Your task to perform on an android device: refresh tabs in the chrome app Image 0: 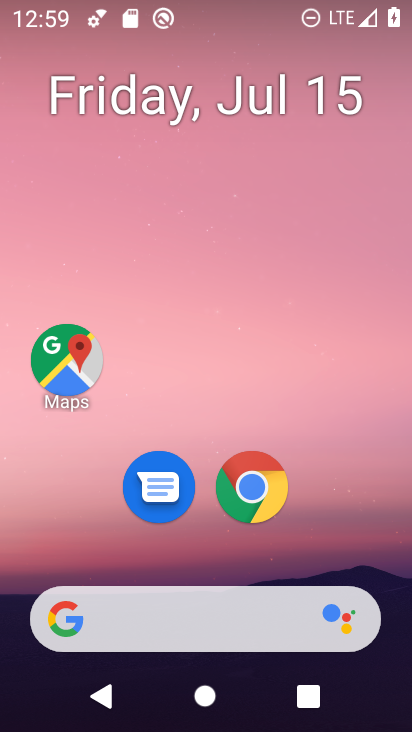
Step 0: drag from (239, 598) to (280, 169)
Your task to perform on an android device: refresh tabs in the chrome app Image 1: 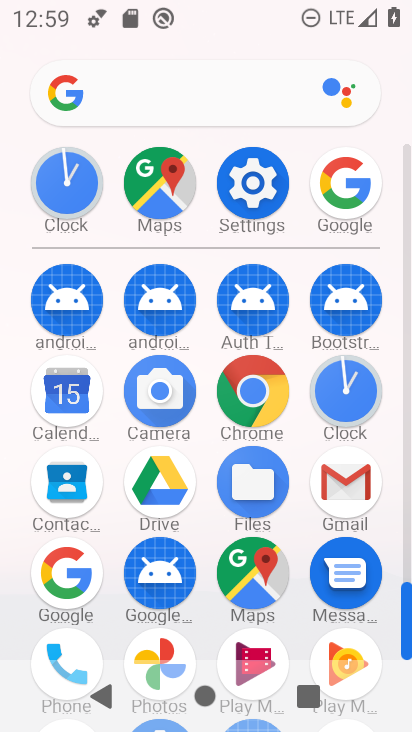
Step 1: click (280, 373)
Your task to perform on an android device: refresh tabs in the chrome app Image 2: 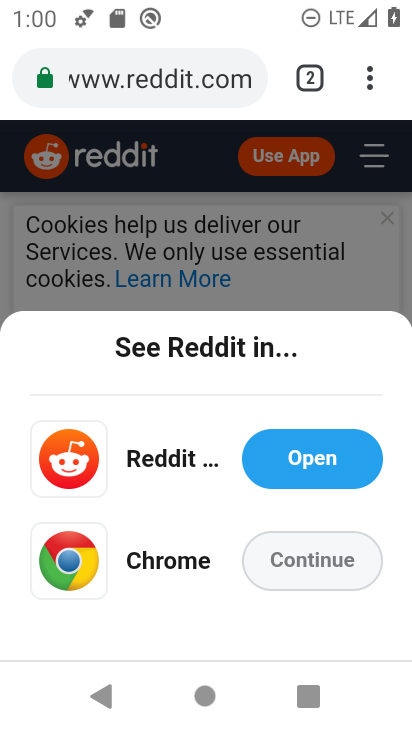
Step 2: click (366, 71)
Your task to perform on an android device: refresh tabs in the chrome app Image 3: 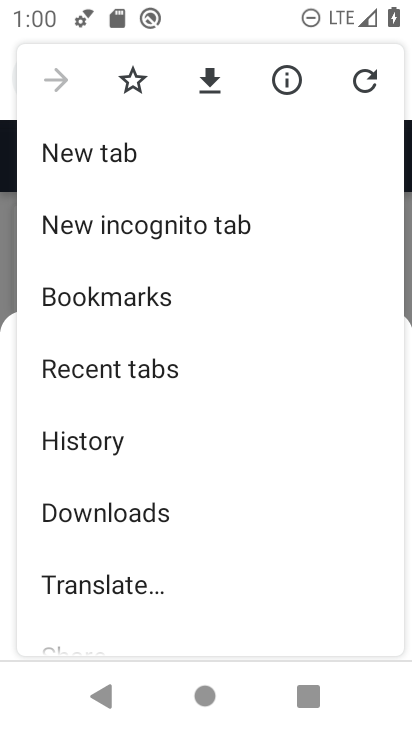
Step 3: click (362, 83)
Your task to perform on an android device: refresh tabs in the chrome app Image 4: 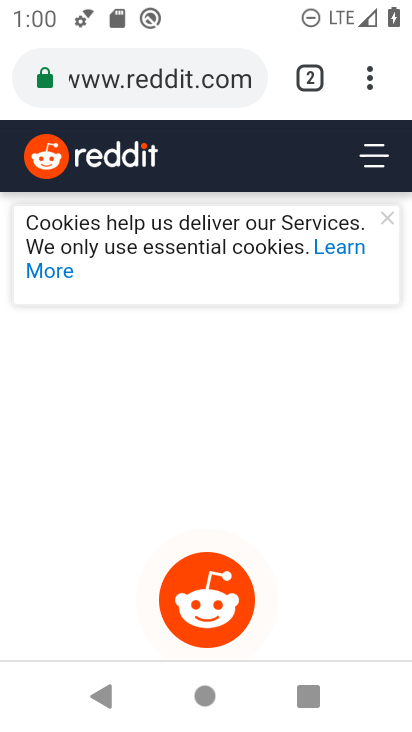
Step 4: task complete